Your task to perform on an android device: Open Youtube and go to "Your channel" Image 0: 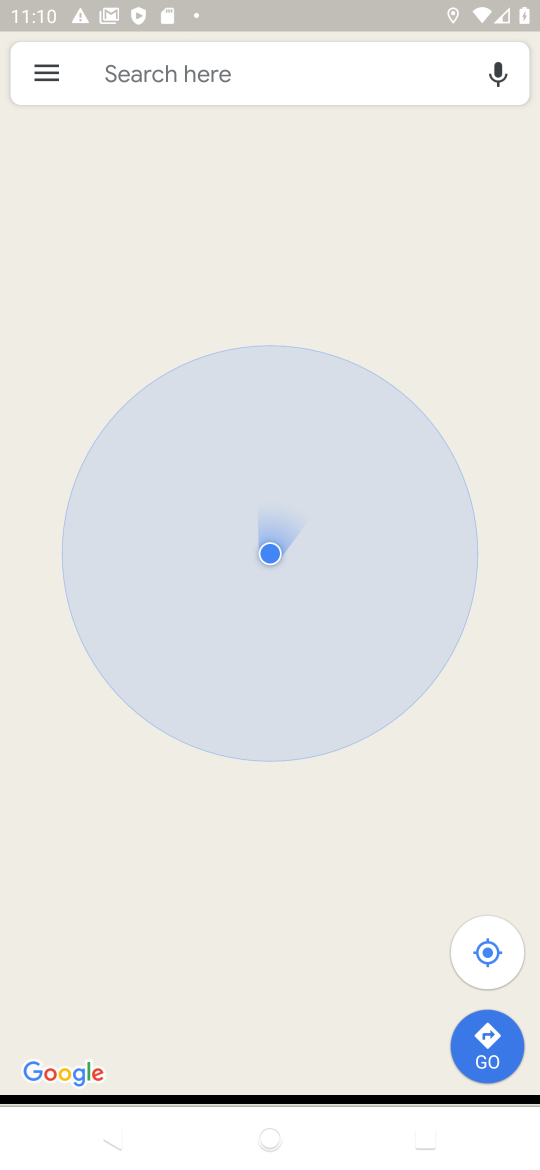
Step 0: press home button
Your task to perform on an android device: Open Youtube and go to "Your channel" Image 1: 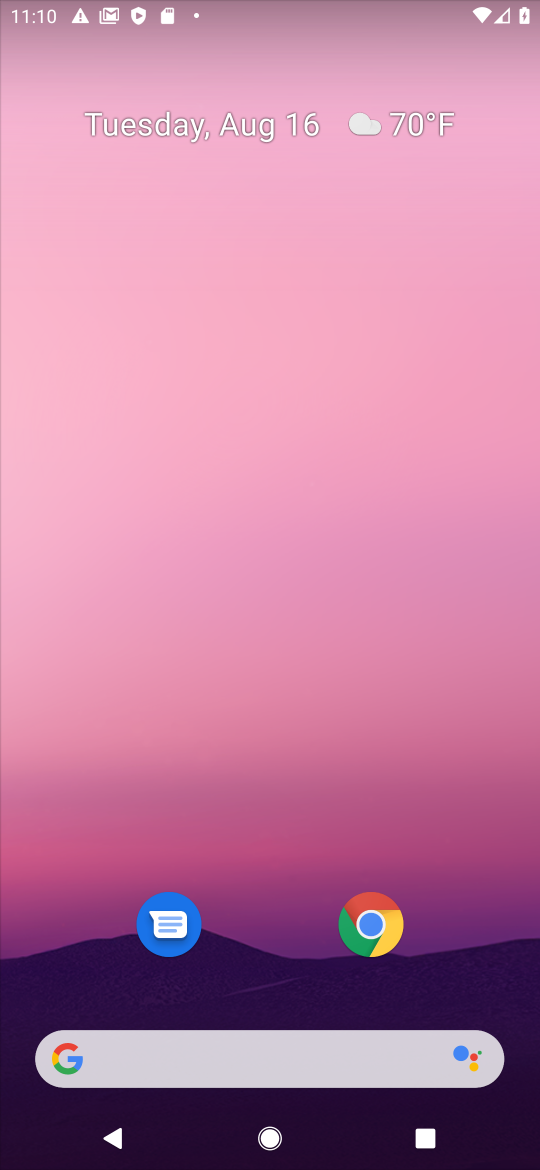
Step 1: drag from (387, 622) to (304, 30)
Your task to perform on an android device: Open Youtube and go to "Your channel" Image 2: 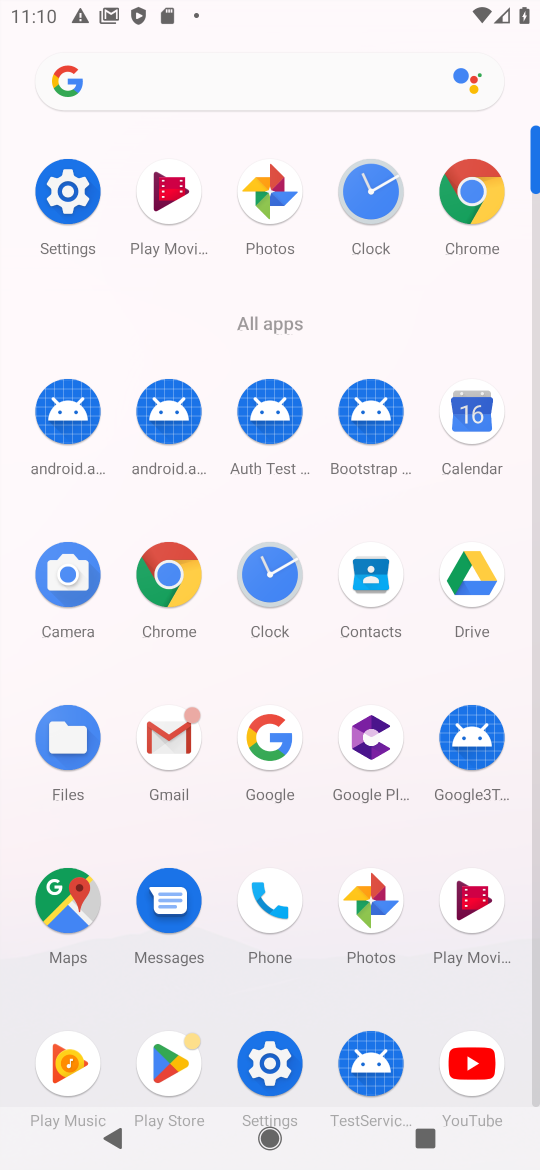
Step 2: click (471, 1062)
Your task to perform on an android device: Open Youtube and go to "Your channel" Image 3: 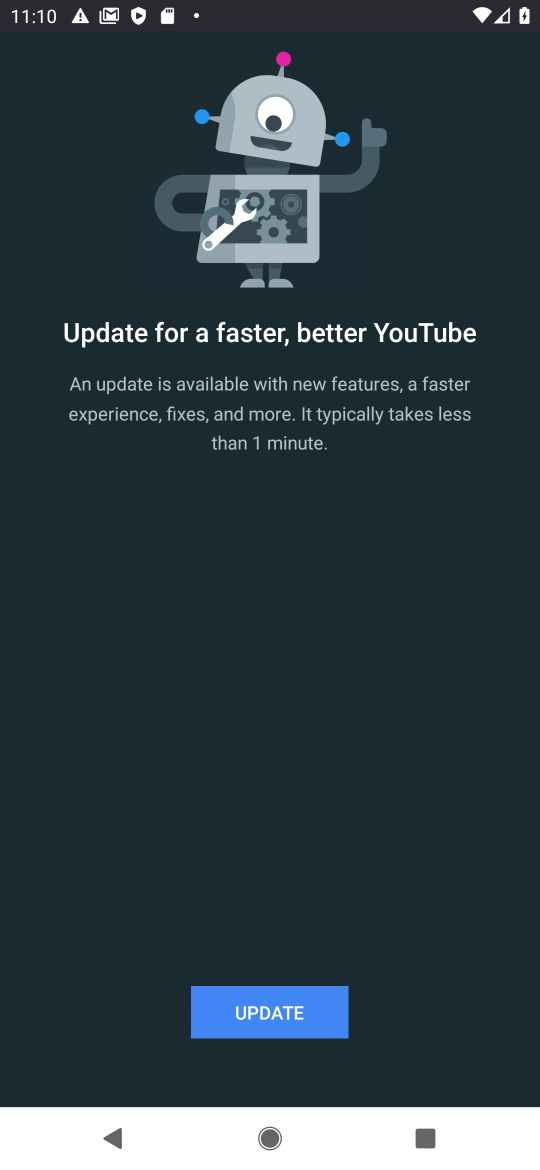
Step 3: click (307, 1027)
Your task to perform on an android device: Open Youtube and go to "Your channel" Image 4: 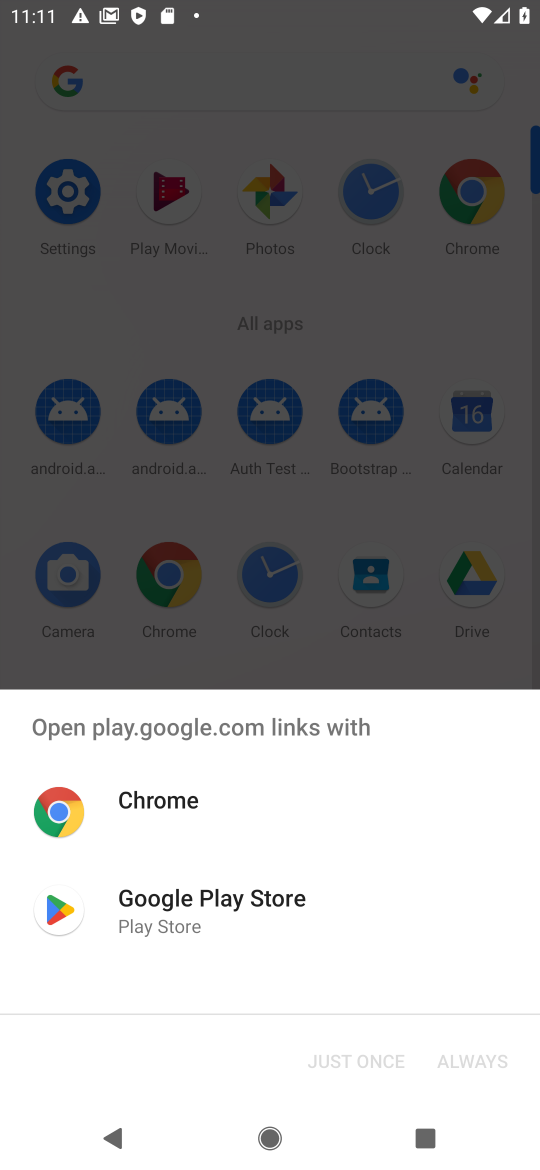
Step 4: click (222, 882)
Your task to perform on an android device: Open Youtube and go to "Your channel" Image 5: 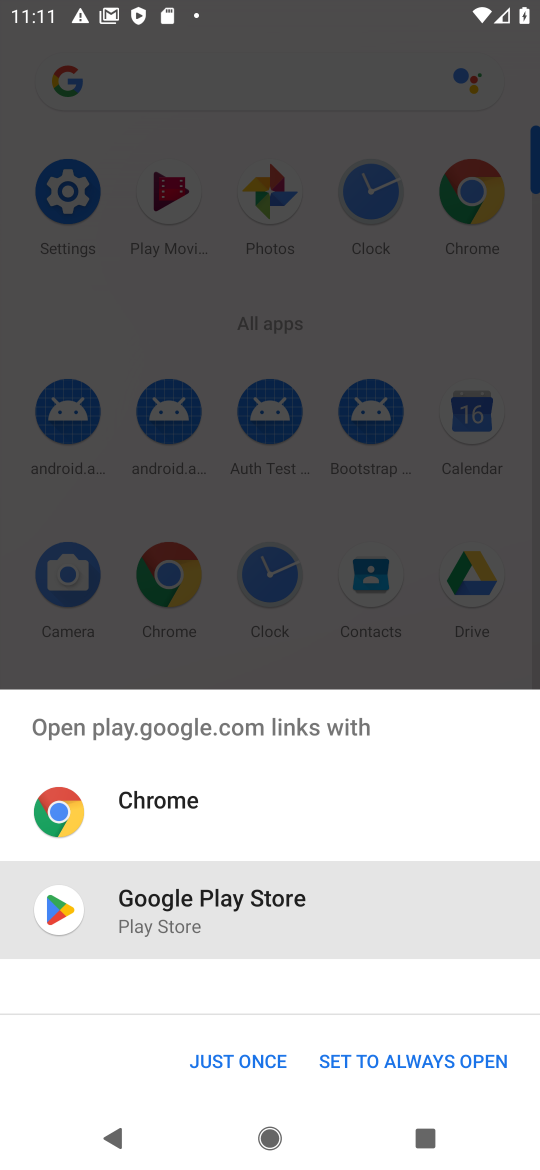
Step 5: click (260, 1062)
Your task to perform on an android device: Open Youtube and go to "Your channel" Image 6: 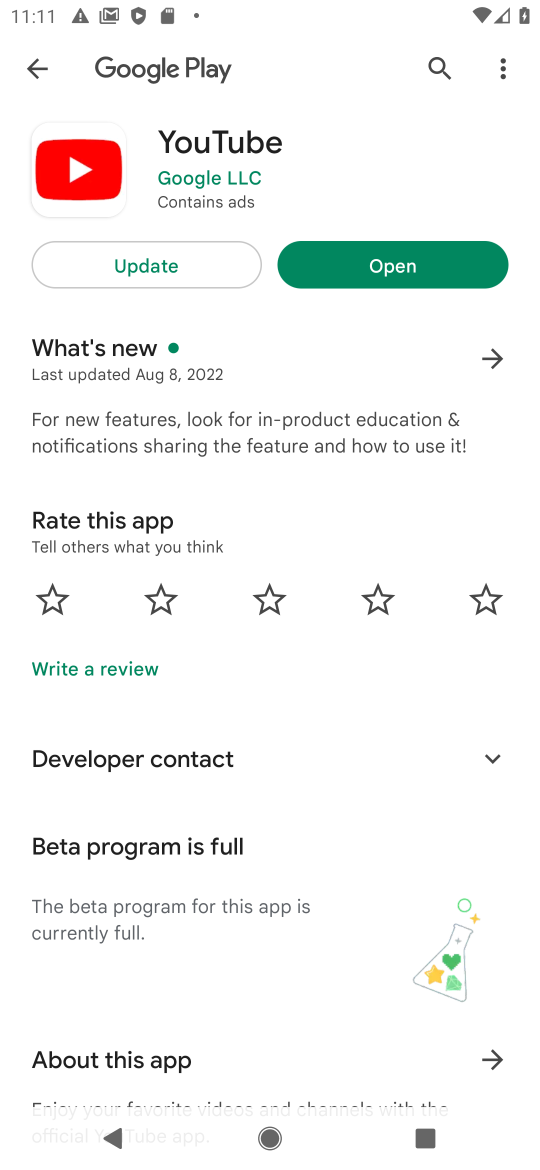
Step 6: click (206, 280)
Your task to perform on an android device: Open Youtube and go to "Your channel" Image 7: 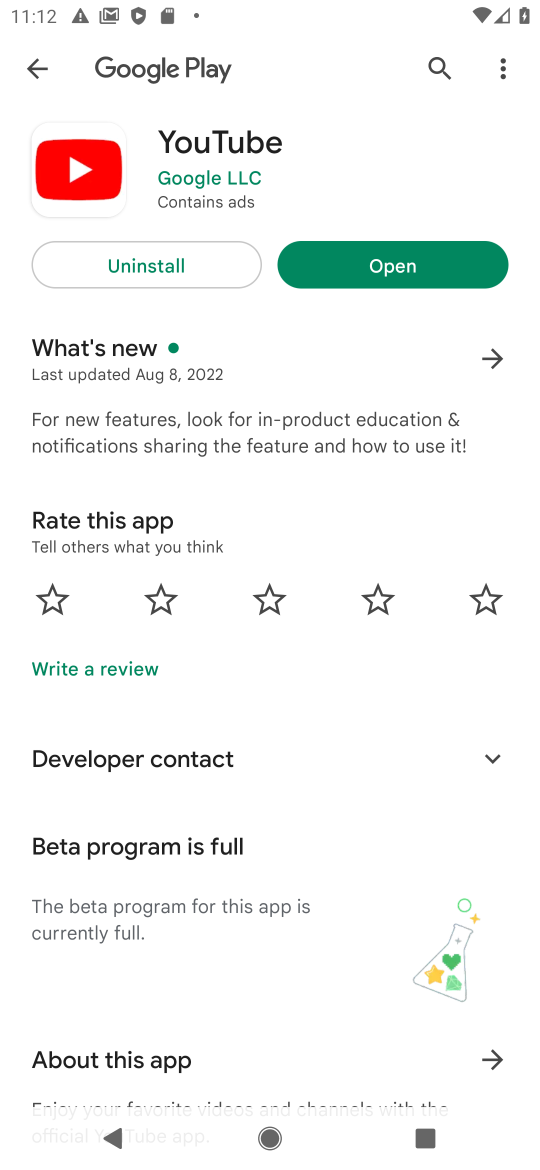
Step 7: click (418, 273)
Your task to perform on an android device: Open Youtube and go to "Your channel" Image 8: 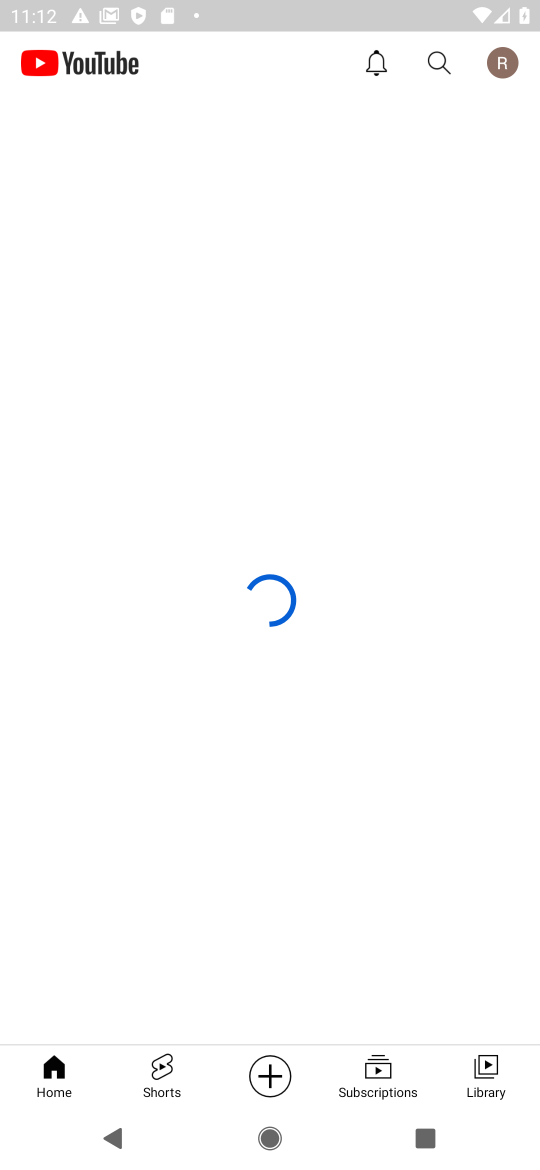
Step 8: click (452, 64)
Your task to perform on an android device: Open Youtube and go to "Your channel" Image 9: 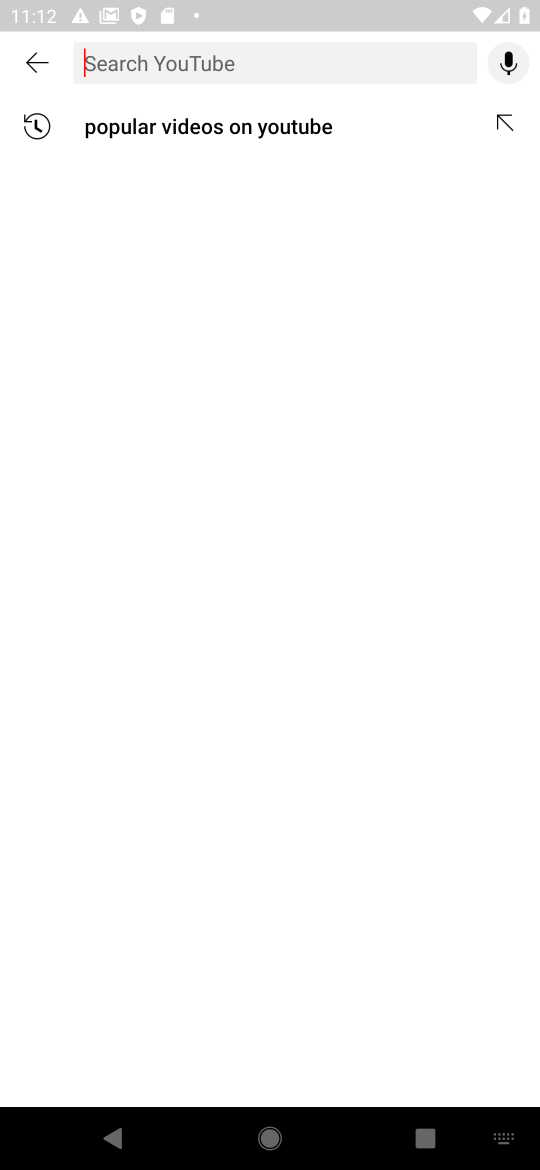
Step 9: type "your channel"
Your task to perform on an android device: Open Youtube and go to "Your channel" Image 10: 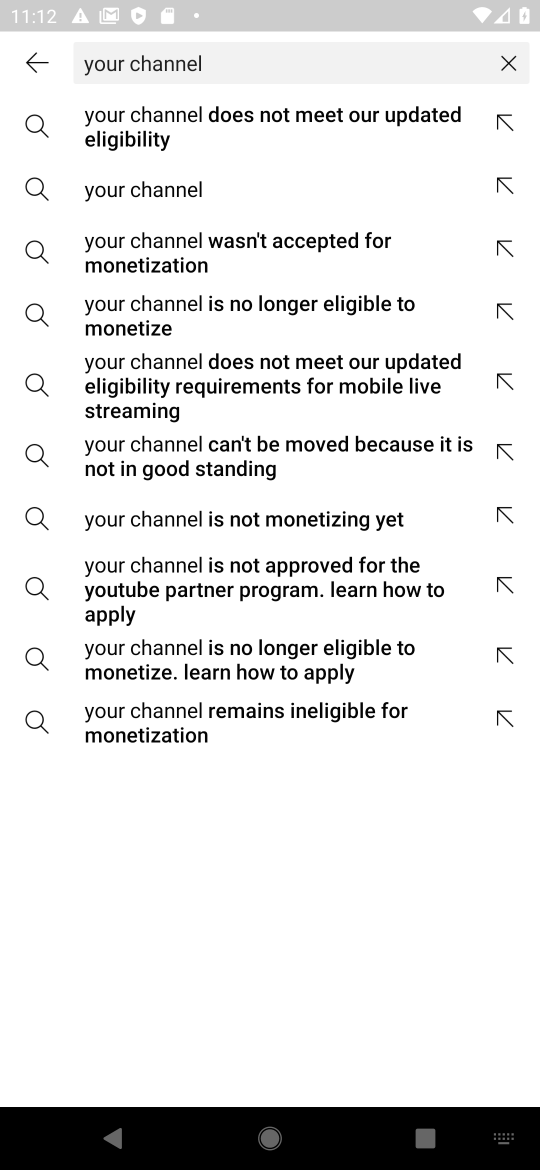
Step 10: click (202, 186)
Your task to perform on an android device: Open Youtube and go to "Your channel" Image 11: 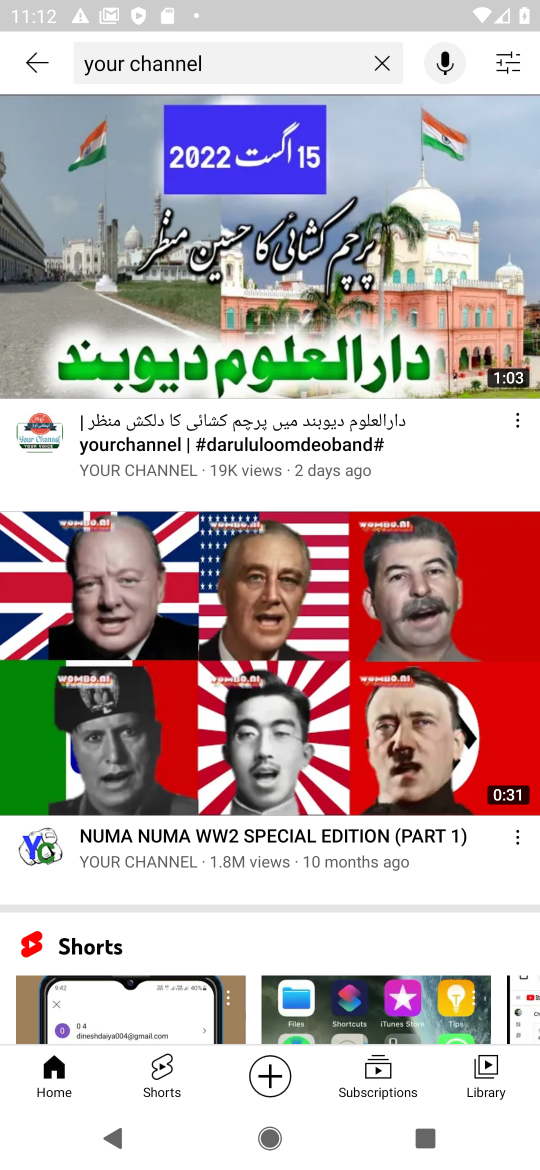
Step 11: task complete